Your task to perform on an android device: turn off wifi Image 0: 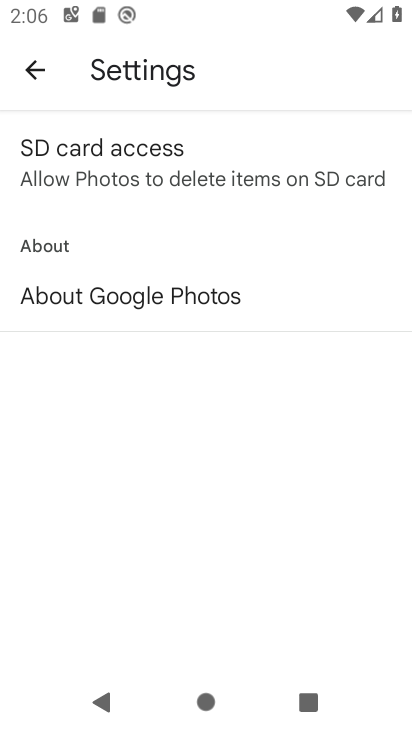
Step 0: press home button
Your task to perform on an android device: turn off wifi Image 1: 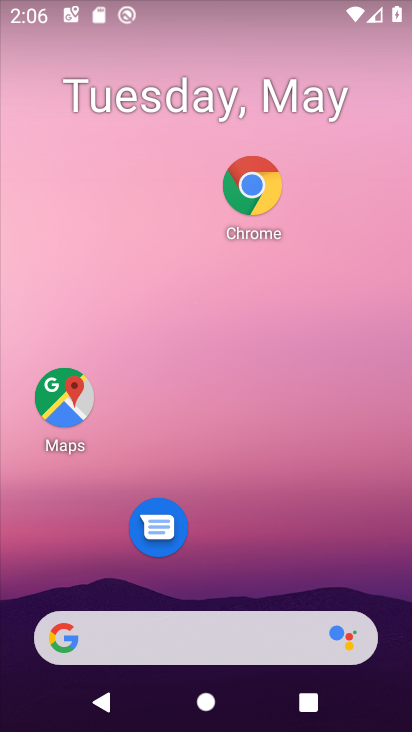
Step 1: drag from (304, 474) to (171, 103)
Your task to perform on an android device: turn off wifi Image 2: 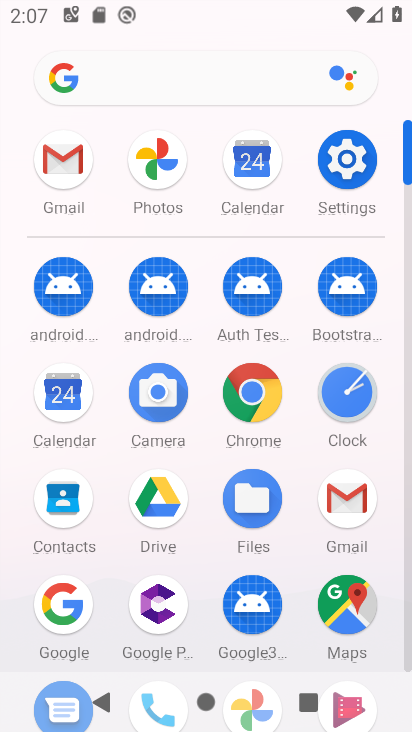
Step 2: click (342, 154)
Your task to perform on an android device: turn off wifi Image 3: 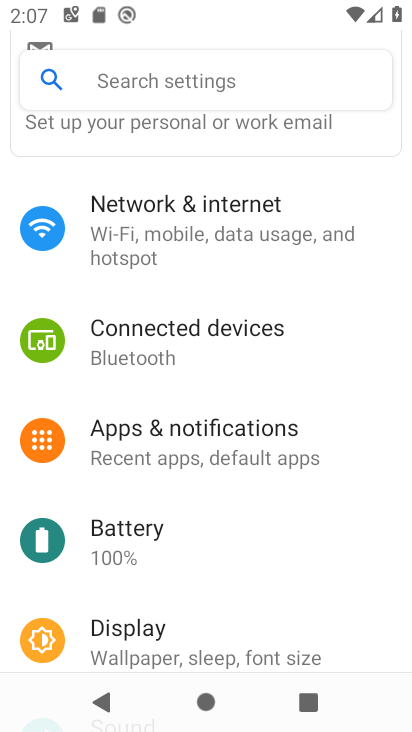
Step 3: click (166, 209)
Your task to perform on an android device: turn off wifi Image 4: 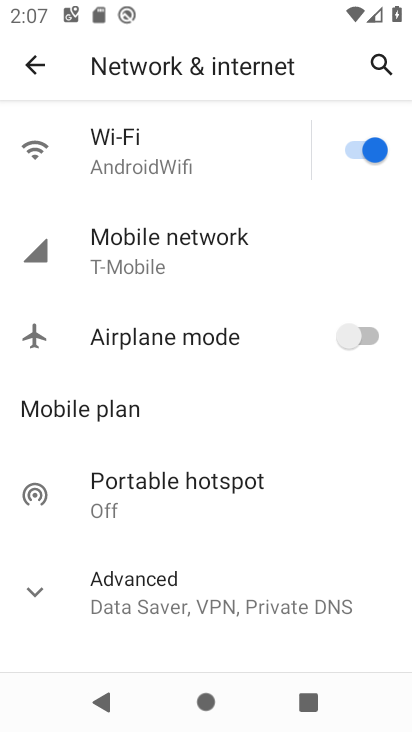
Step 4: click (359, 151)
Your task to perform on an android device: turn off wifi Image 5: 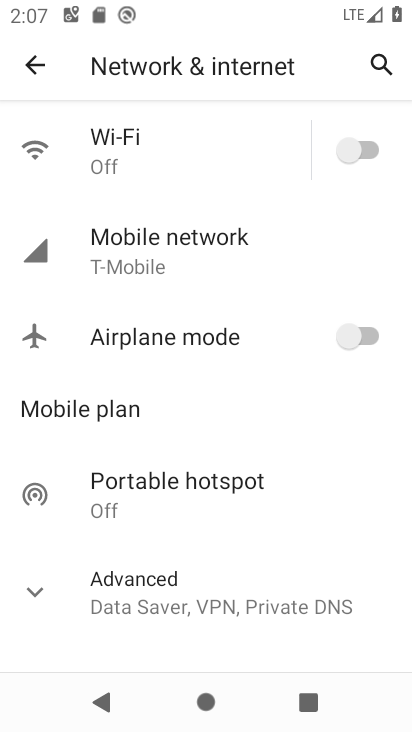
Step 5: task complete